Your task to perform on an android device: turn off translation in the chrome app Image 0: 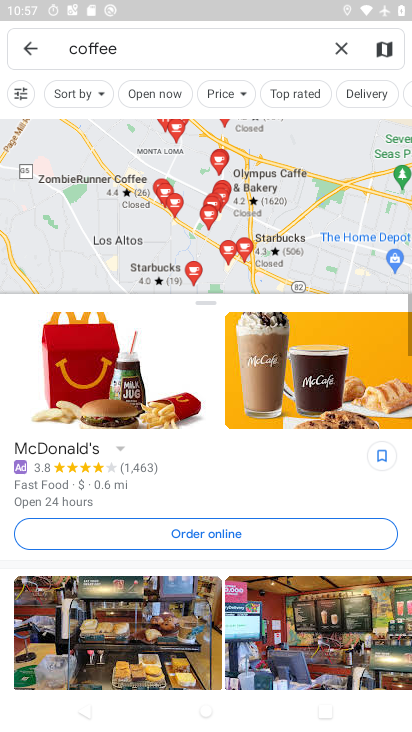
Step 0: press home button
Your task to perform on an android device: turn off translation in the chrome app Image 1: 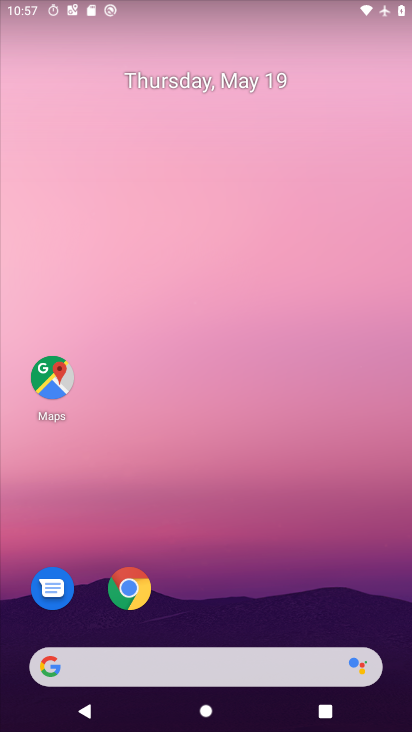
Step 1: click (135, 599)
Your task to perform on an android device: turn off translation in the chrome app Image 2: 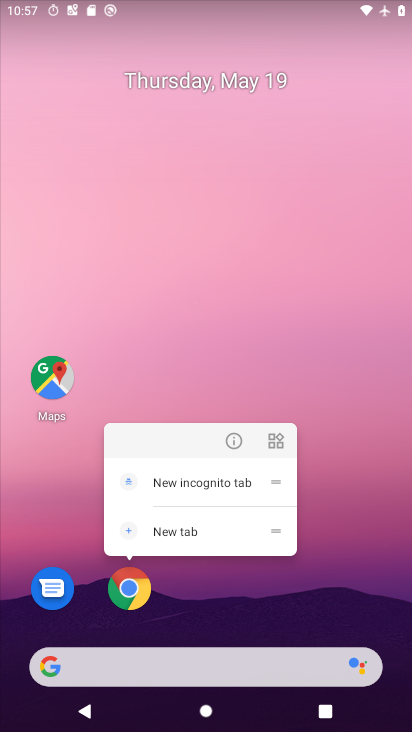
Step 2: click (136, 591)
Your task to perform on an android device: turn off translation in the chrome app Image 3: 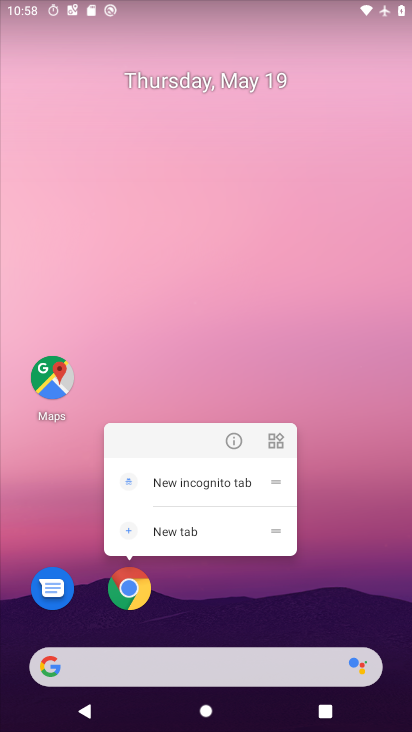
Step 3: click (130, 592)
Your task to perform on an android device: turn off translation in the chrome app Image 4: 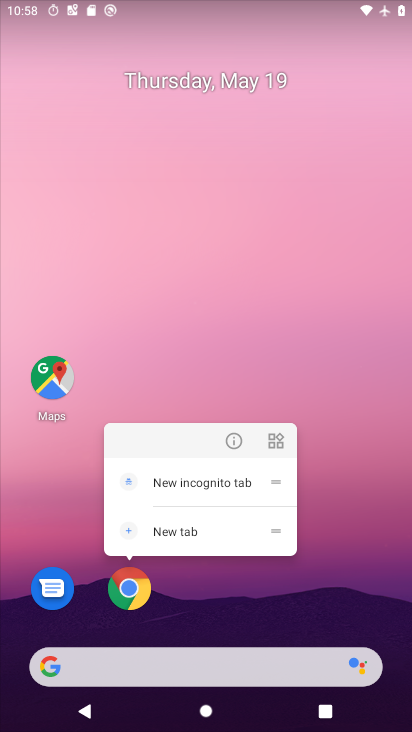
Step 4: click (126, 601)
Your task to perform on an android device: turn off translation in the chrome app Image 5: 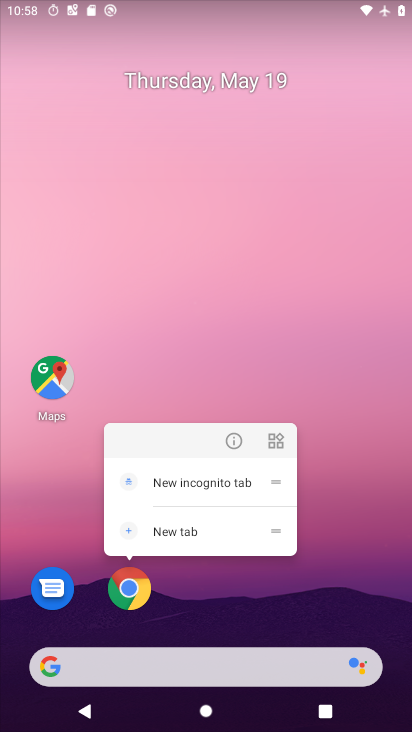
Step 5: click (140, 589)
Your task to perform on an android device: turn off translation in the chrome app Image 6: 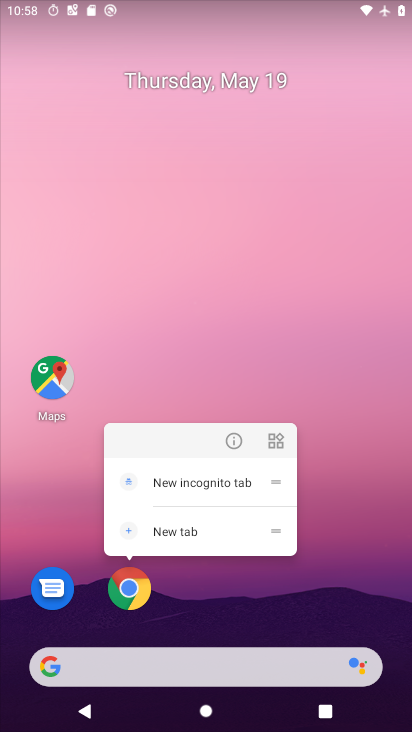
Step 6: click (137, 593)
Your task to perform on an android device: turn off translation in the chrome app Image 7: 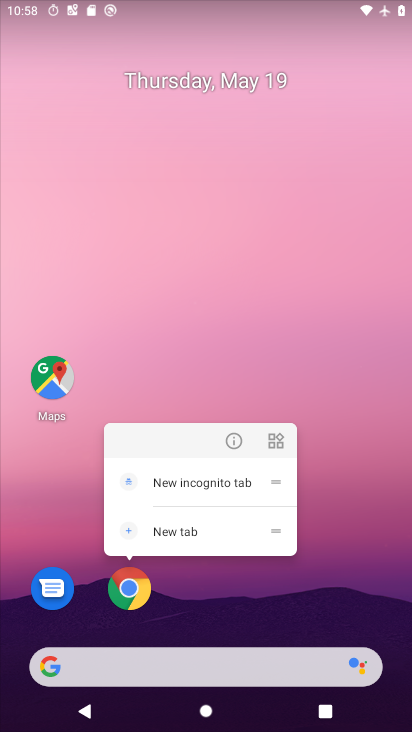
Step 7: click (127, 596)
Your task to perform on an android device: turn off translation in the chrome app Image 8: 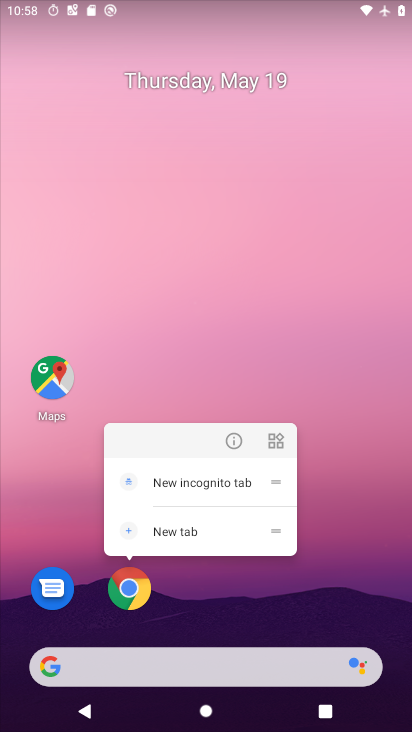
Step 8: drag from (144, 674) to (307, 79)
Your task to perform on an android device: turn off translation in the chrome app Image 9: 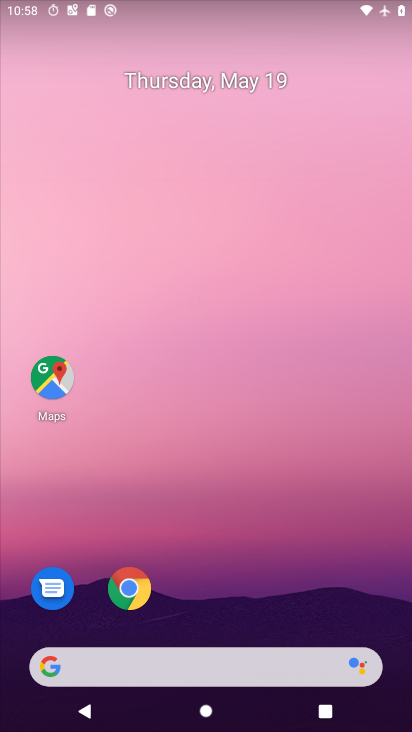
Step 9: drag from (131, 661) to (297, 168)
Your task to perform on an android device: turn off translation in the chrome app Image 10: 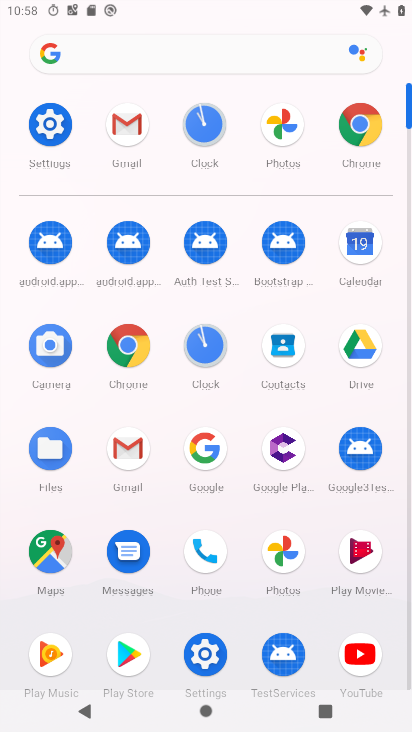
Step 10: click (361, 133)
Your task to perform on an android device: turn off translation in the chrome app Image 11: 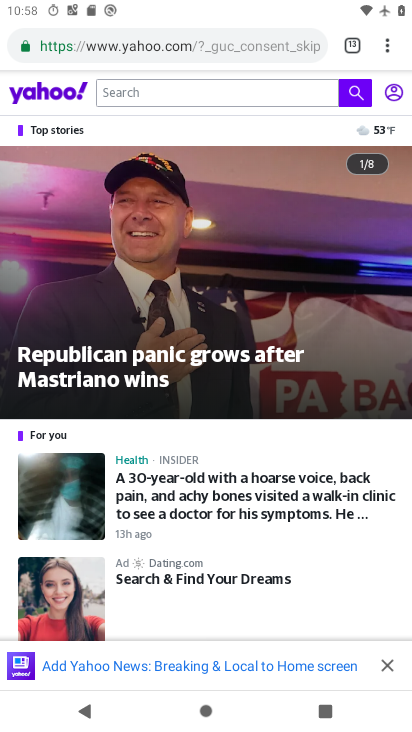
Step 11: drag from (389, 41) to (261, 538)
Your task to perform on an android device: turn off translation in the chrome app Image 12: 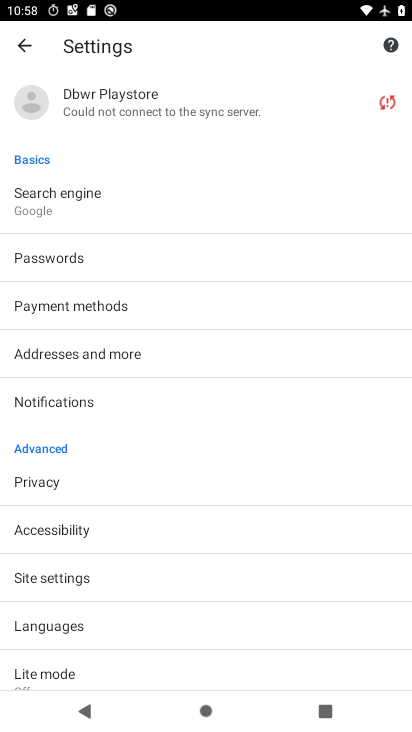
Step 12: drag from (169, 606) to (254, 414)
Your task to perform on an android device: turn off translation in the chrome app Image 13: 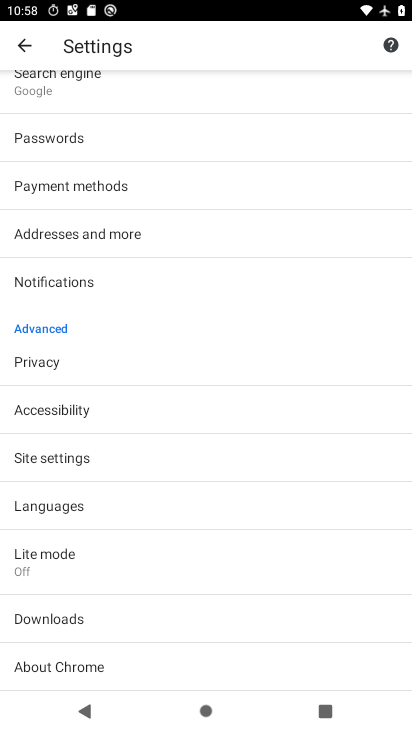
Step 13: click (135, 511)
Your task to perform on an android device: turn off translation in the chrome app Image 14: 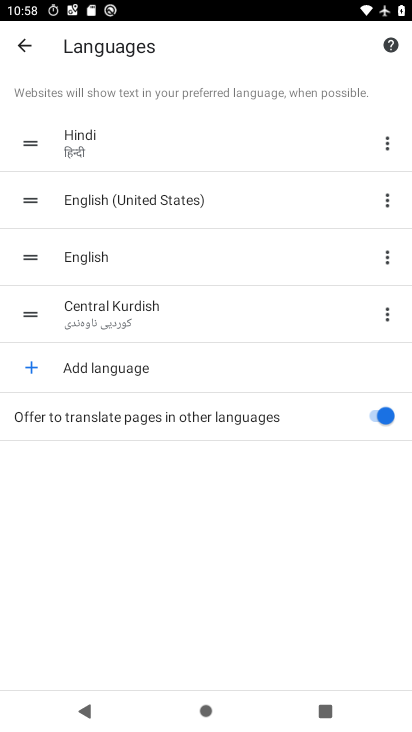
Step 14: click (379, 411)
Your task to perform on an android device: turn off translation in the chrome app Image 15: 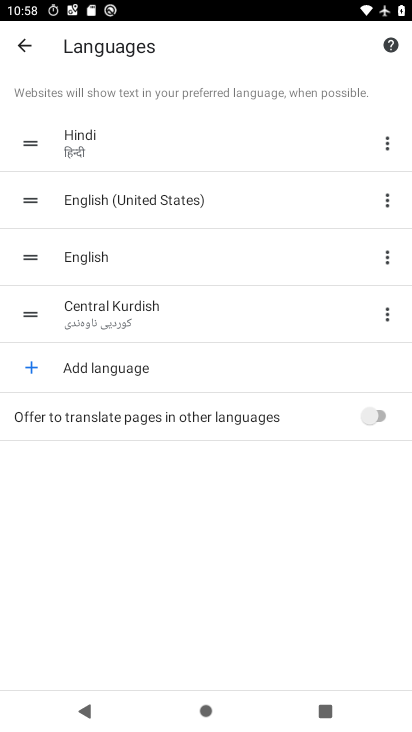
Step 15: task complete